Your task to perform on an android device: turn on data saver in the chrome app Image 0: 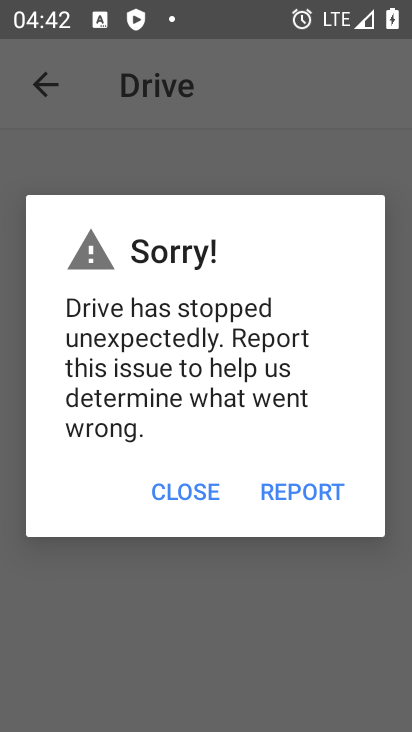
Step 0: drag from (347, 672) to (284, 52)
Your task to perform on an android device: turn on data saver in the chrome app Image 1: 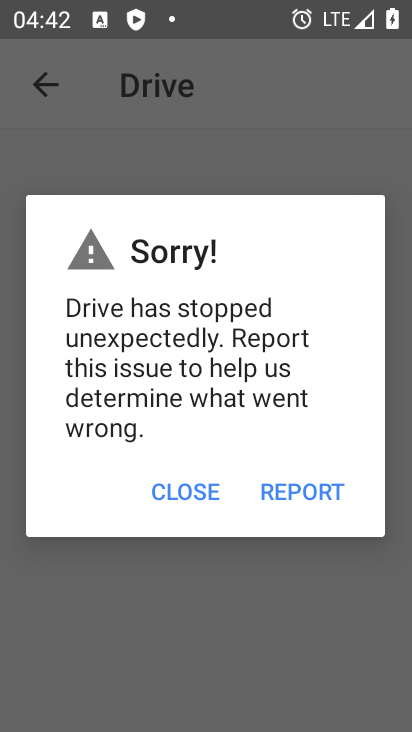
Step 1: press home button
Your task to perform on an android device: turn on data saver in the chrome app Image 2: 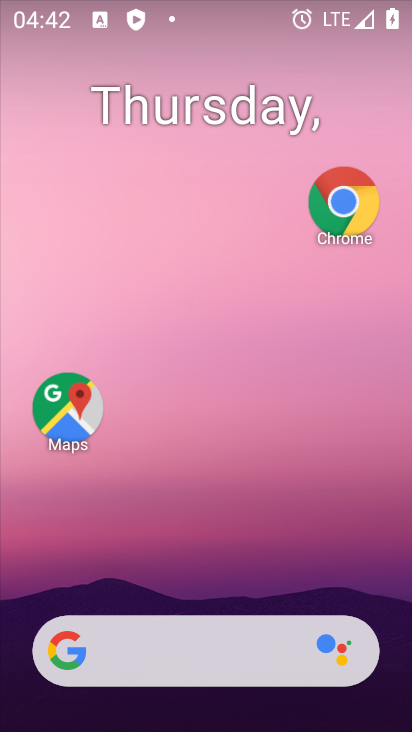
Step 2: drag from (250, 618) to (241, 148)
Your task to perform on an android device: turn on data saver in the chrome app Image 3: 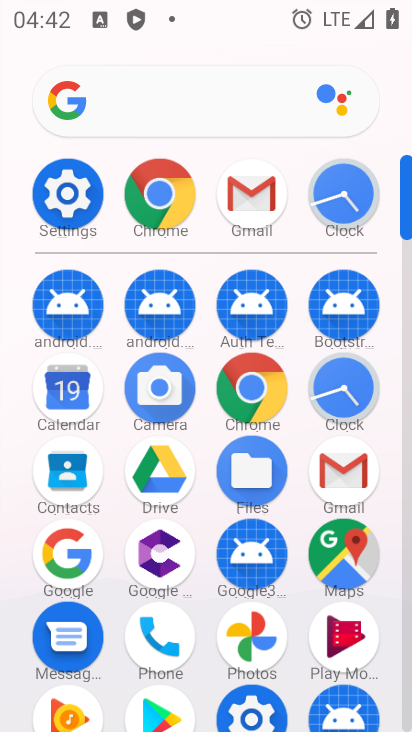
Step 3: click (252, 391)
Your task to perform on an android device: turn on data saver in the chrome app Image 4: 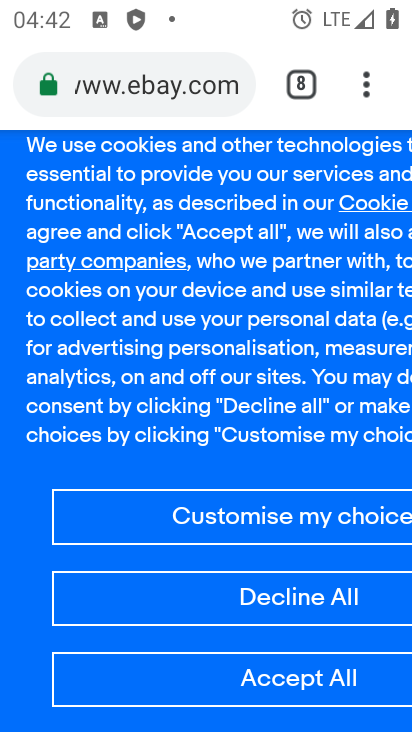
Step 4: click (359, 74)
Your task to perform on an android device: turn on data saver in the chrome app Image 5: 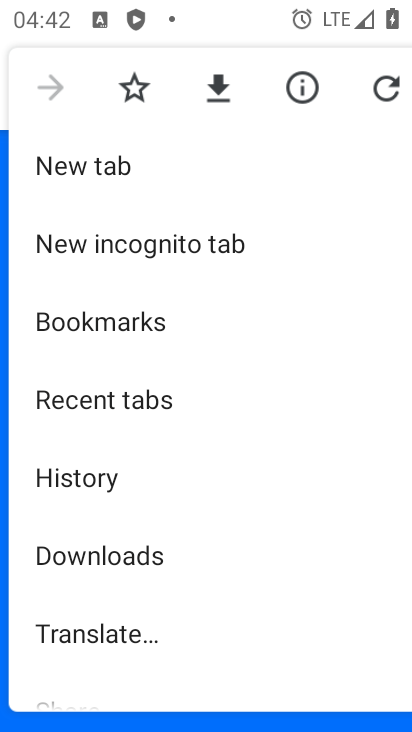
Step 5: drag from (150, 338) to (123, 653)
Your task to perform on an android device: turn on data saver in the chrome app Image 6: 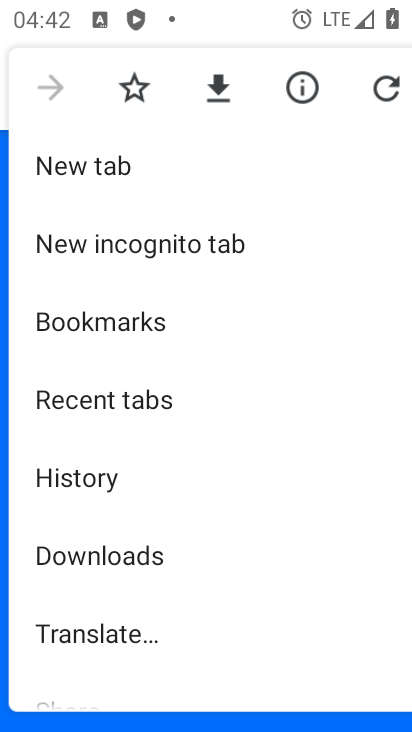
Step 6: drag from (150, 588) to (197, 67)
Your task to perform on an android device: turn on data saver in the chrome app Image 7: 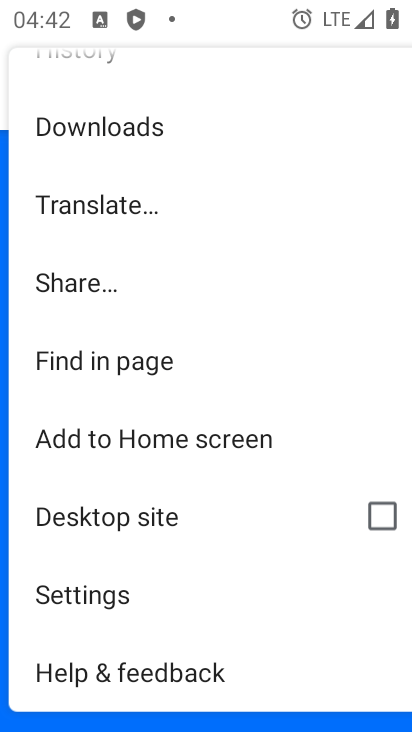
Step 7: click (135, 589)
Your task to perform on an android device: turn on data saver in the chrome app Image 8: 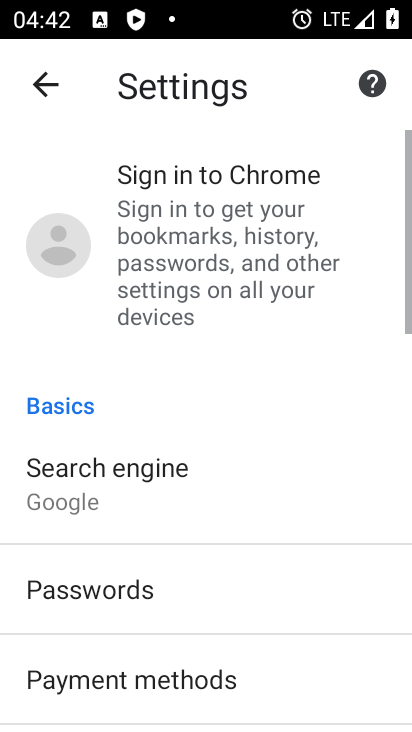
Step 8: drag from (176, 642) to (217, 109)
Your task to perform on an android device: turn on data saver in the chrome app Image 9: 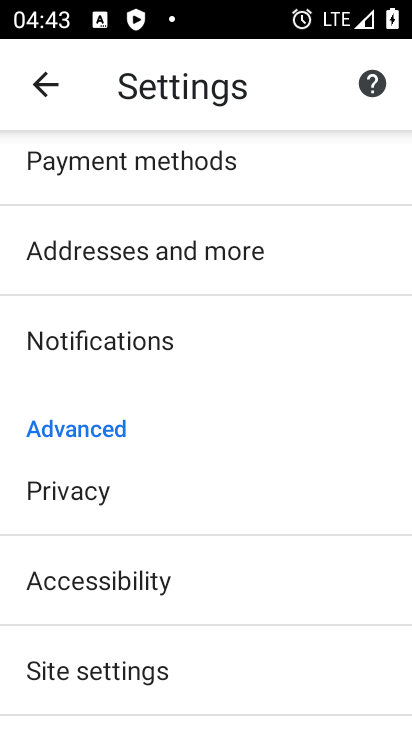
Step 9: click (195, 657)
Your task to perform on an android device: turn on data saver in the chrome app Image 10: 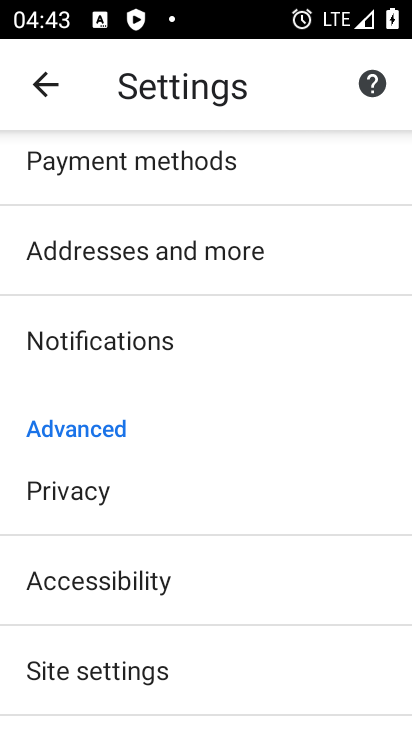
Step 10: click (195, 657)
Your task to perform on an android device: turn on data saver in the chrome app Image 11: 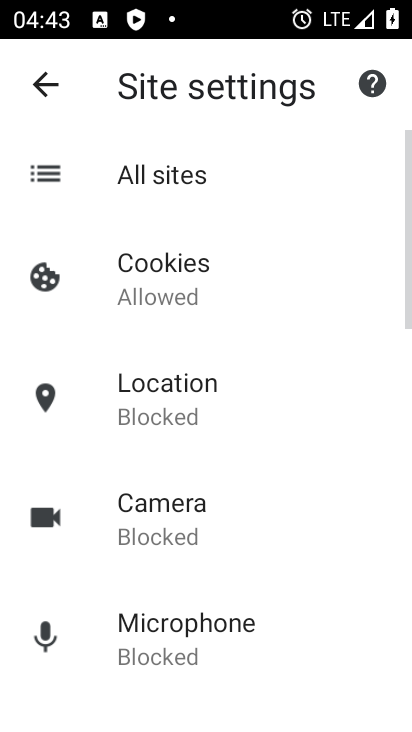
Step 11: press back button
Your task to perform on an android device: turn on data saver in the chrome app Image 12: 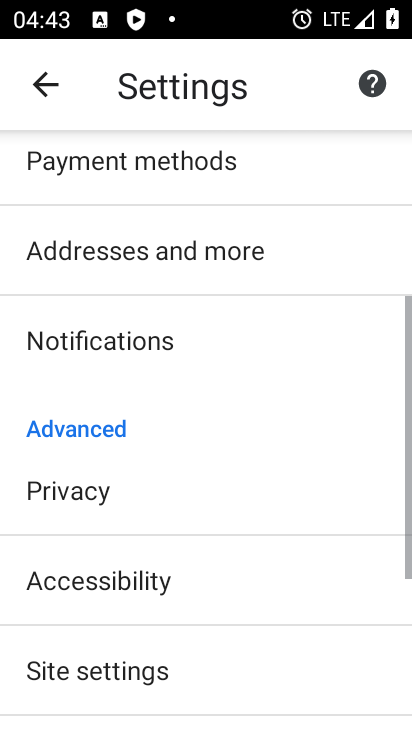
Step 12: drag from (283, 696) to (266, 255)
Your task to perform on an android device: turn on data saver in the chrome app Image 13: 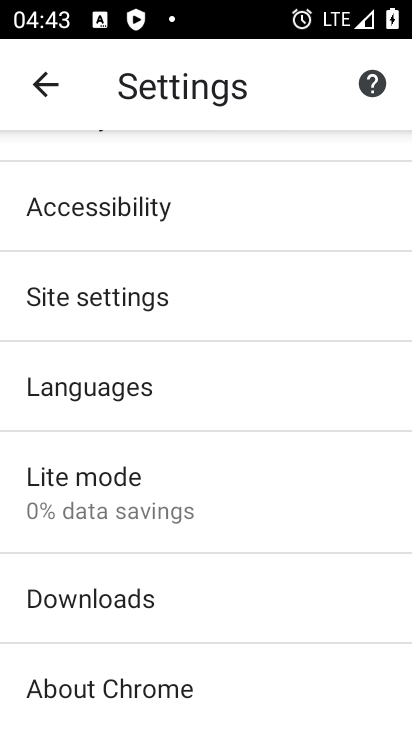
Step 13: click (206, 487)
Your task to perform on an android device: turn on data saver in the chrome app Image 14: 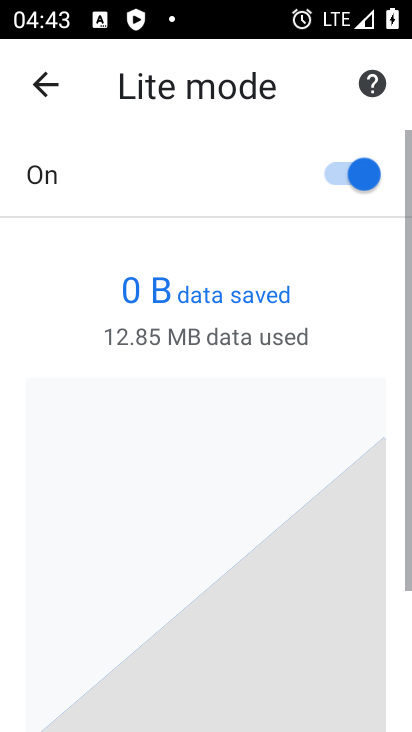
Step 14: task complete